Your task to perform on an android device: Open accessibility settings Image 0: 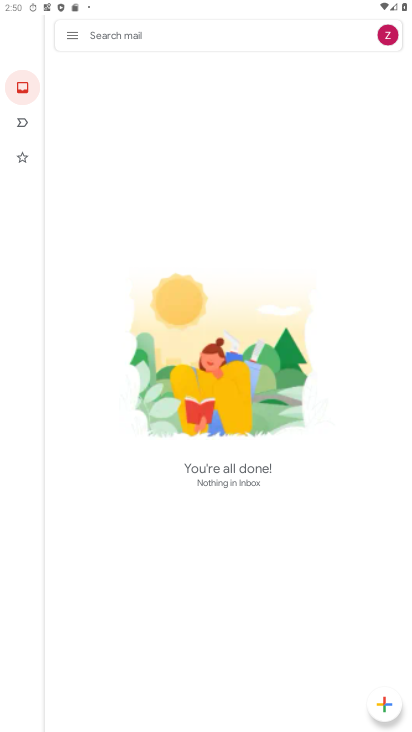
Step 0: press home button
Your task to perform on an android device: Open accessibility settings Image 1: 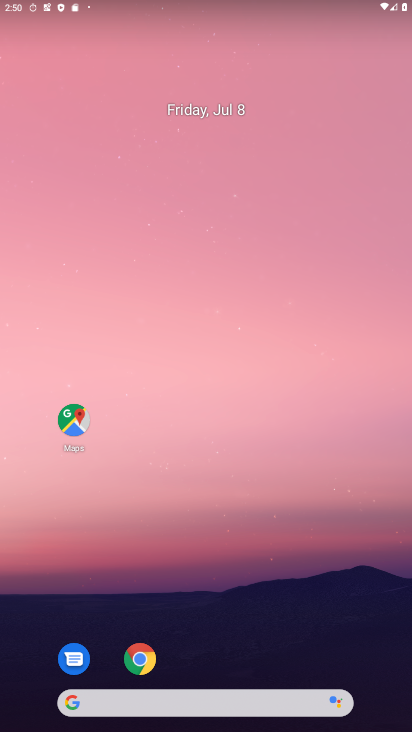
Step 1: drag from (326, 615) to (212, 24)
Your task to perform on an android device: Open accessibility settings Image 2: 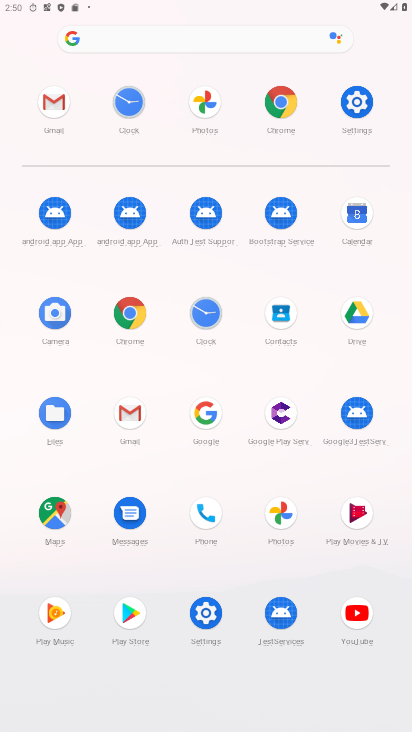
Step 2: click (352, 94)
Your task to perform on an android device: Open accessibility settings Image 3: 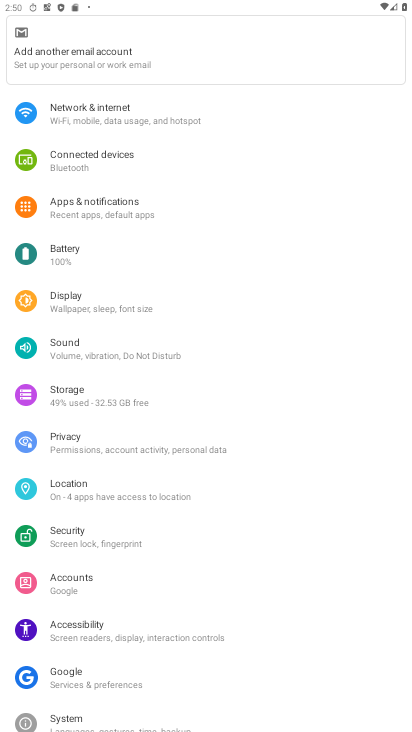
Step 3: click (160, 627)
Your task to perform on an android device: Open accessibility settings Image 4: 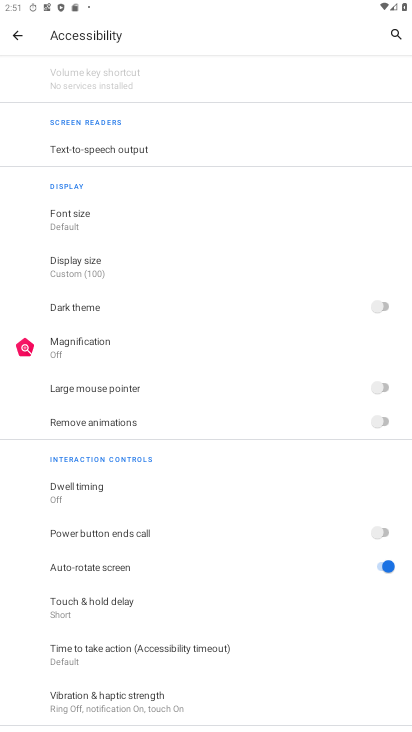
Step 4: task complete